Your task to perform on an android device: What's the weather going to be this weekend? Image 0: 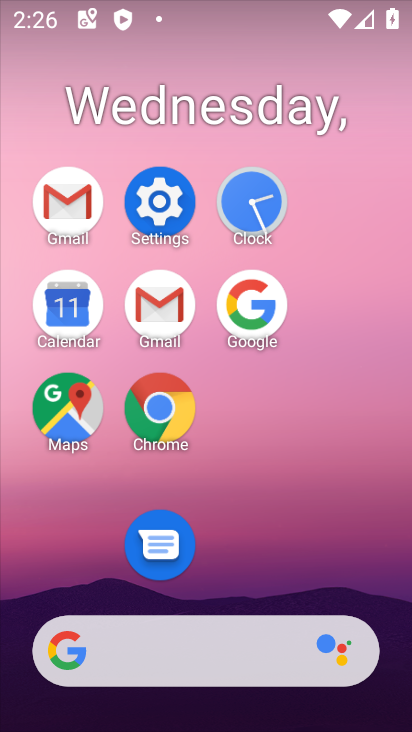
Step 0: click (238, 302)
Your task to perform on an android device: What's the weather going to be this weekend? Image 1: 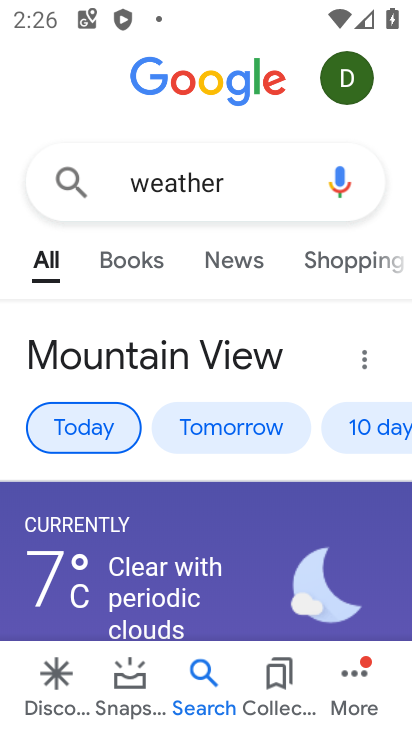
Step 1: click (378, 424)
Your task to perform on an android device: What's the weather going to be this weekend? Image 2: 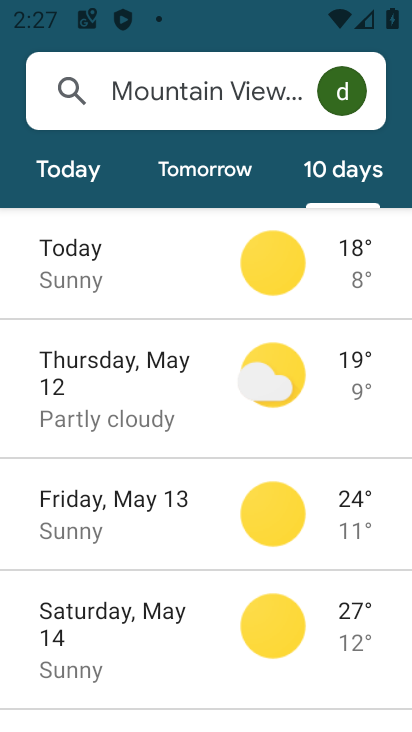
Step 2: click (180, 638)
Your task to perform on an android device: What's the weather going to be this weekend? Image 3: 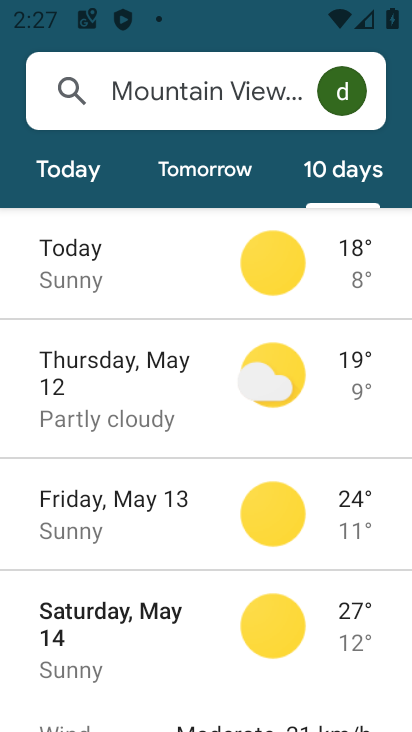
Step 3: click (124, 626)
Your task to perform on an android device: What's the weather going to be this weekend? Image 4: 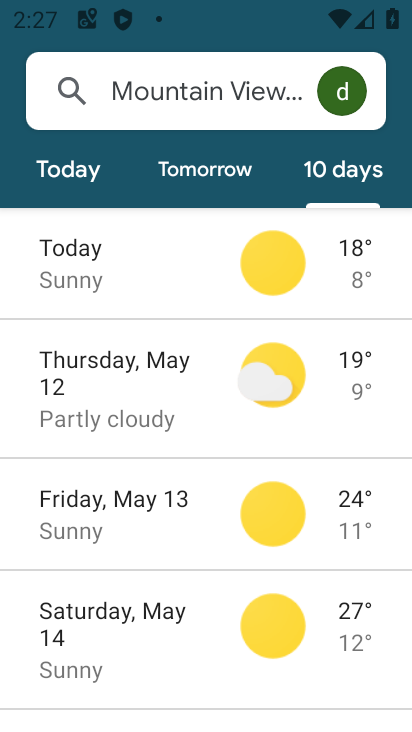
Step 4: click (154, 629)
Your task to perform on an android device: What's the weather going to be this weekend? Image 5: 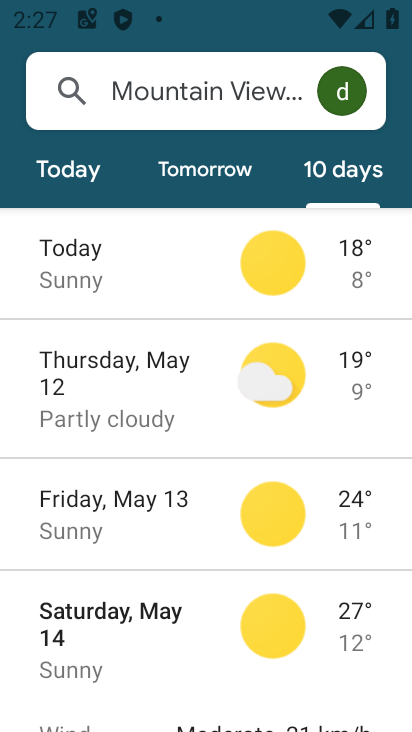
Step 5: task complete